Your task to perform on an android device: Go to sound settings Image 0: 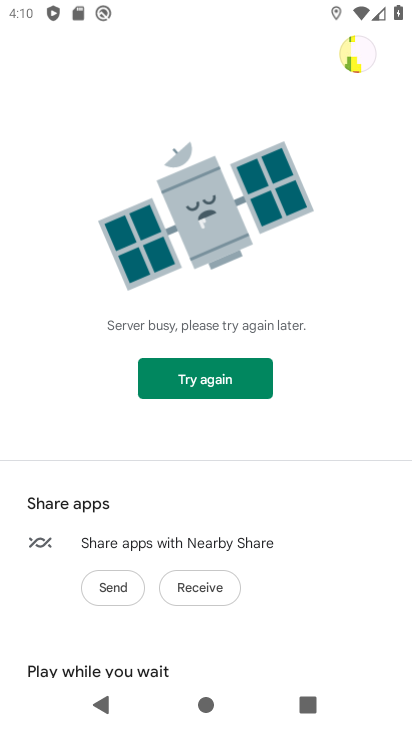
Step 0: press back button
Your task to perform on an android device: Go to sound settings Image 1: 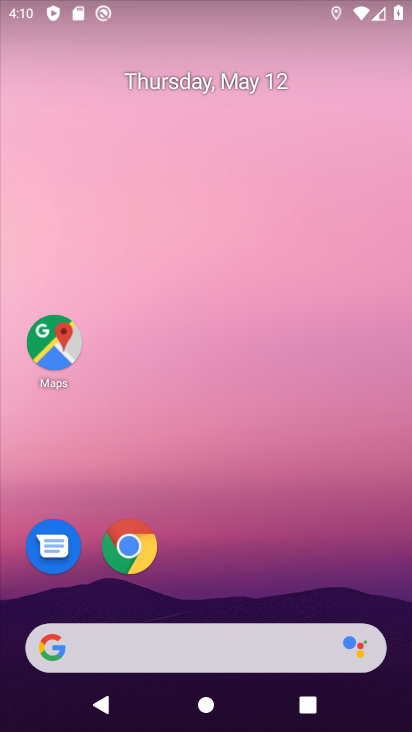
Step 1: drag from (221, 528) to (205, 0)
Your task to perform on an android device: Go to sound settings Image 2: 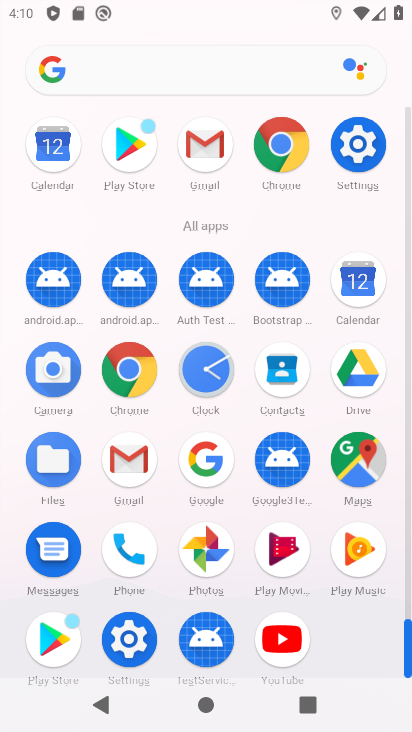
Step 2: click (355, 147)
Your task to perform on an android device: Go to sound settings Image 3: 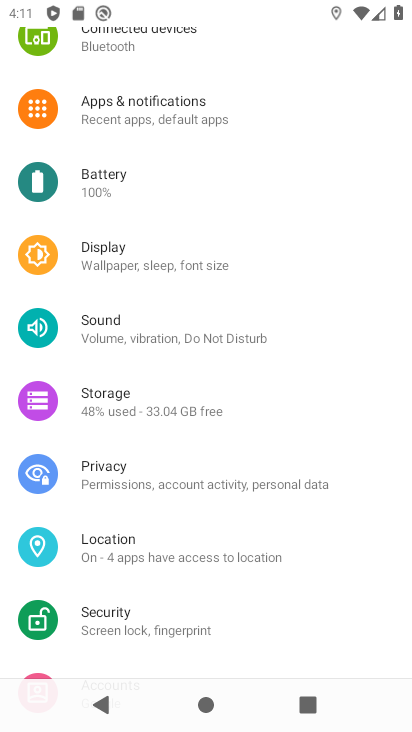
Step 3: click (138, 321)
Your task to perform on an android device: Go to sound settings Image 4: 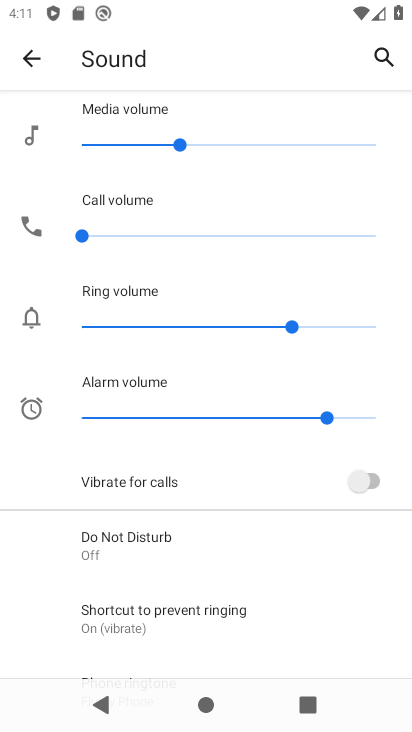
Step 4: drag from (168, 575) to (186, 304)
Your task to perform on an android device: Go to sound settings Image 5: 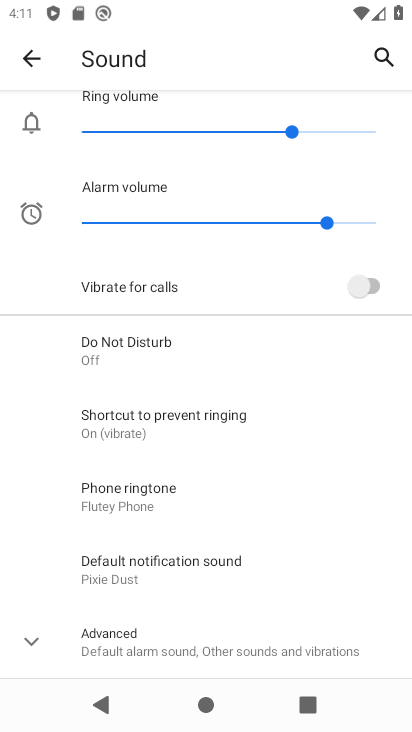
Step 5: drag from (229, 519) to (262, 143)
Your task to perform on an android device: Go to sound settings Image 6: 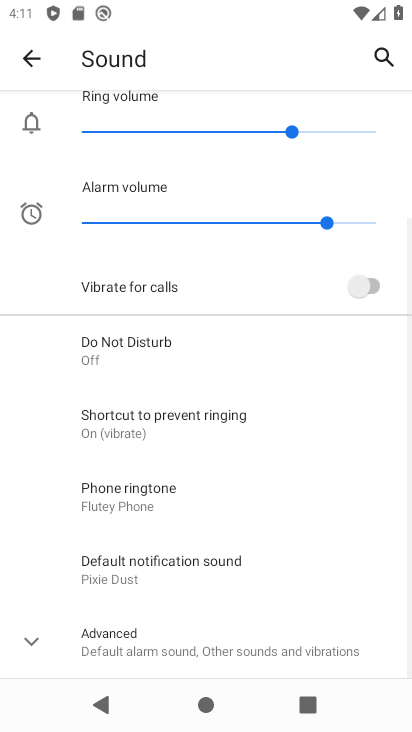
Step 6: drag from (262, 145) to (228, 558)
Your task to perform on an android device: Go to sound settings Image 7: 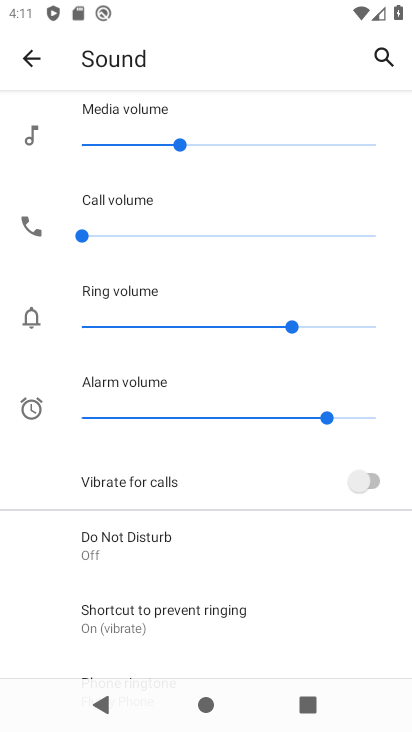
Step 7: drag from (207, 256) to (218, 482)
Your task to perform on an android device: Go to sound settings Image 8: 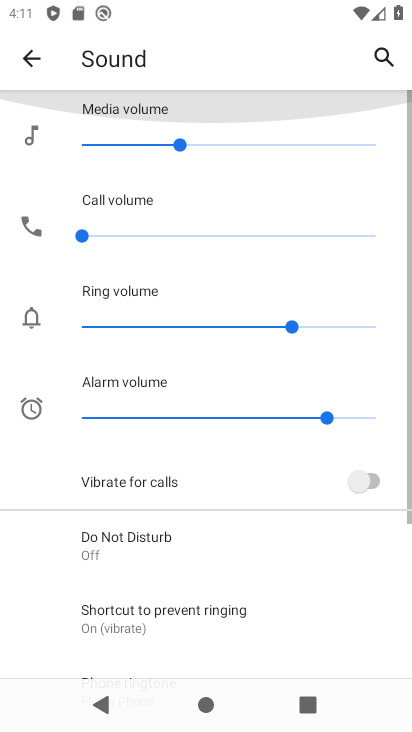
Step 8: drag from (205, 587) to (217, 112)
Your task to perform on an android device: Go to sound settings Image 9: 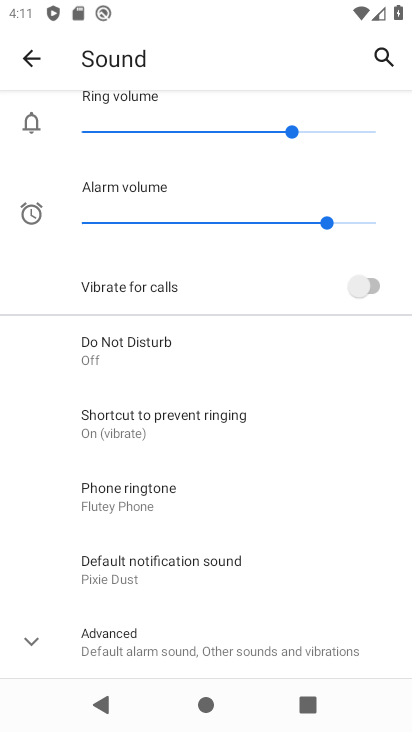
Step 9: click (37, 646)
Your task to perform on an android device: Go to sound settings Image 10: 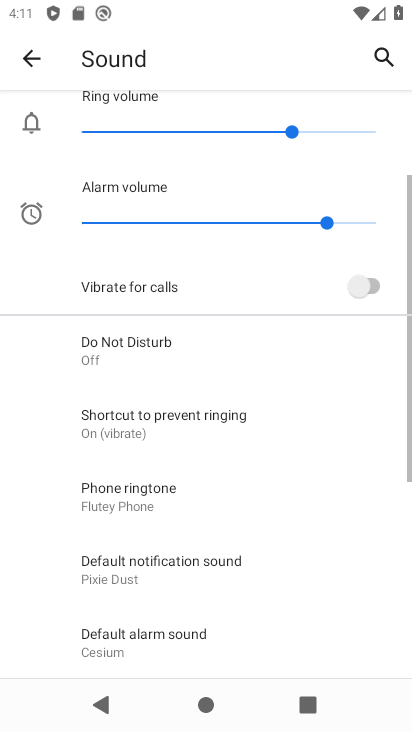
Step 10: task complete